Your task to perform on an android device: Go to Android settings Image 0: 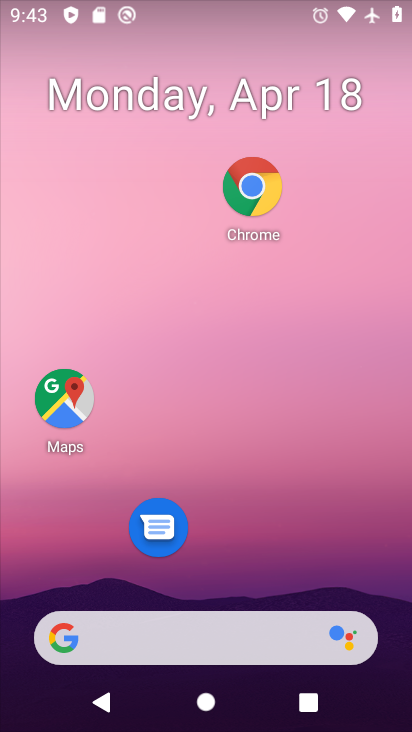
Step 0: drag from (276, 341) to (312, 0)
Your task to perform on an android device: Go to Android settings Image 1: 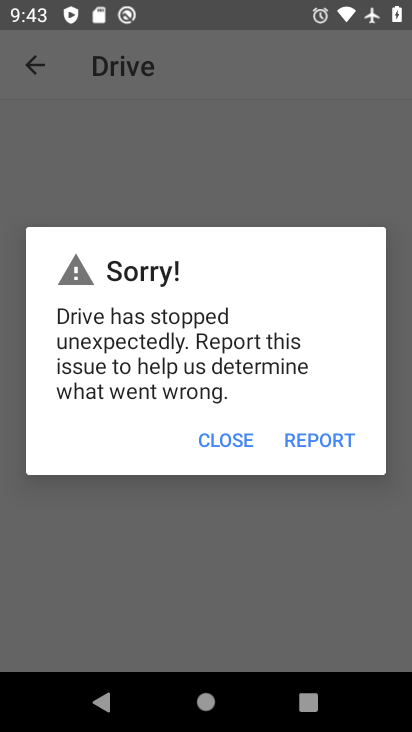
Step 1: press home button
Your task to perform on an android device: Go to Android settings Image 2: 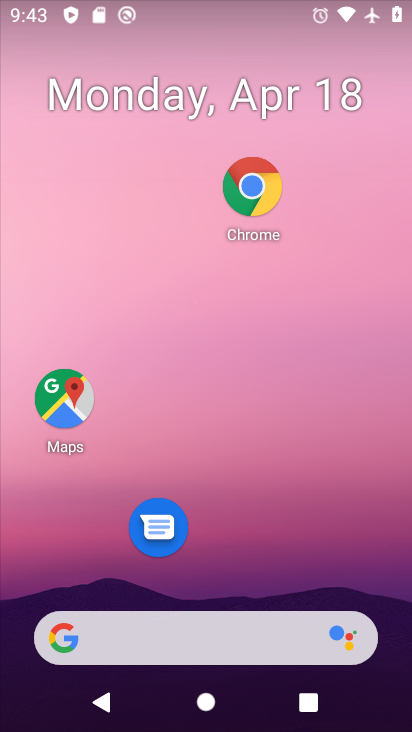
Step 2: drag from (293, 527) to (284, 28)
Your task to perform on an android device: Go to Android settings Image 3: 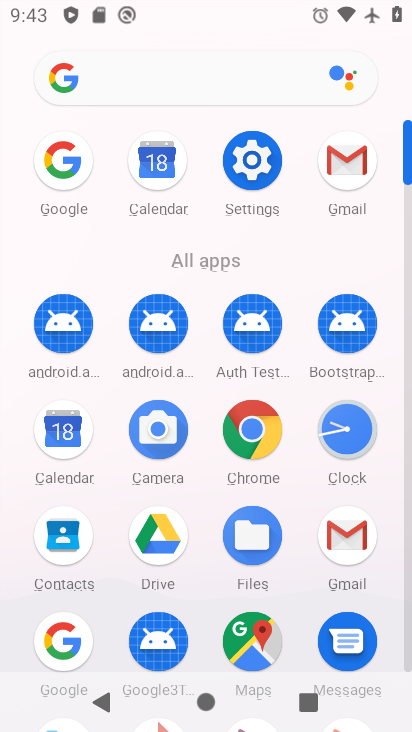
Step 3: click (260, 181)
Your task to perform on an android device: Go to Android settings Image 4: 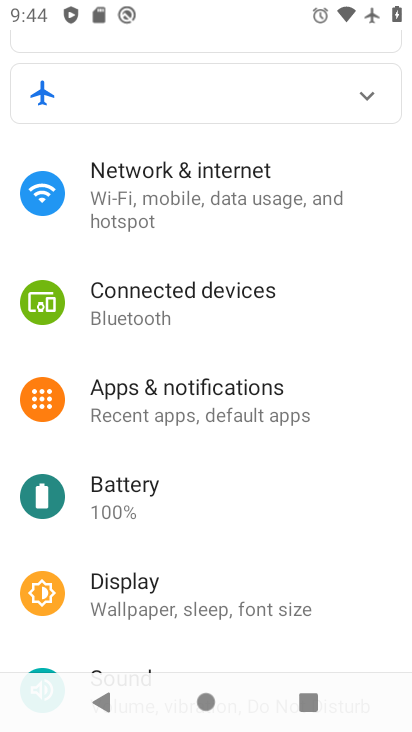
Step 4: drag from (258, 475) to (264, 89)
Your task to perform on an android device: Go to Android settings Image 5: 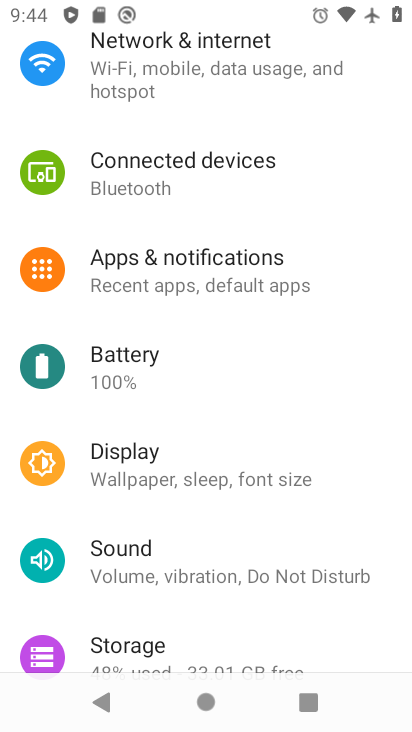
Step 5: drag from (263, 410) to (285, 12)
Your task to perform on an android device: Go to Android settings Image 6: 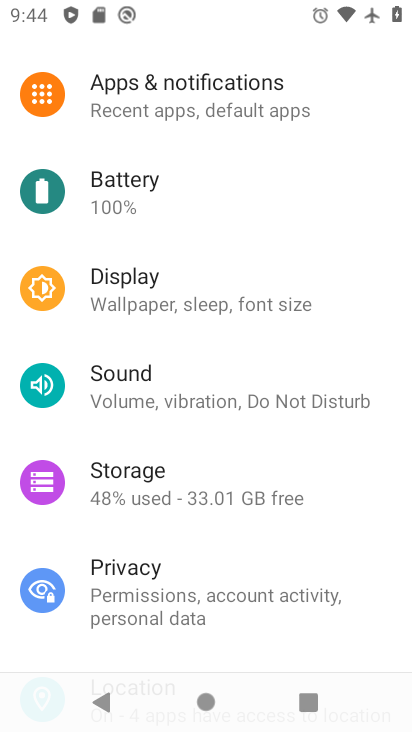
Step 6: drag from (304, 530) to (349, 9)
Your task to perform on an android device: Go to Android settings Image 7: 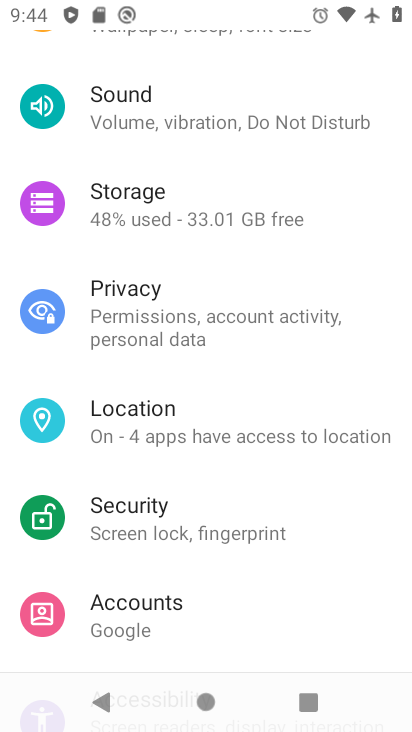
Step 7: drag from (295, 486) to (333, 5)
Your task to perform on an android device: Go to Android settings Image 8: 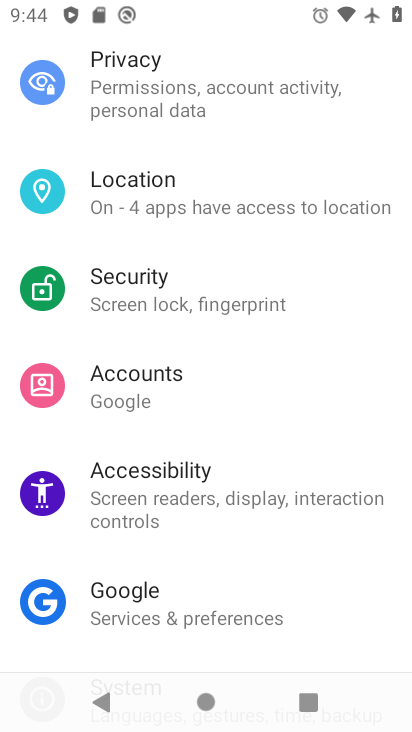
Step 8: drag from (172, 497) to (240, 85)
Your task to perform on an android device: Go to Android settings Image 9: 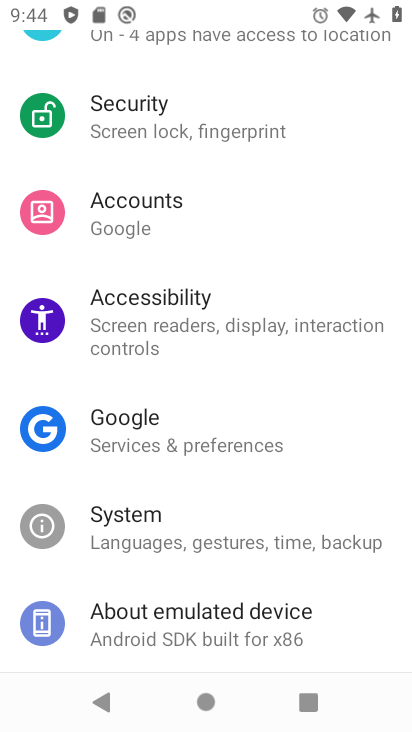
Step 9: click (191, 607)
Your task to perform on an android device: Go to Android settings Image 10: 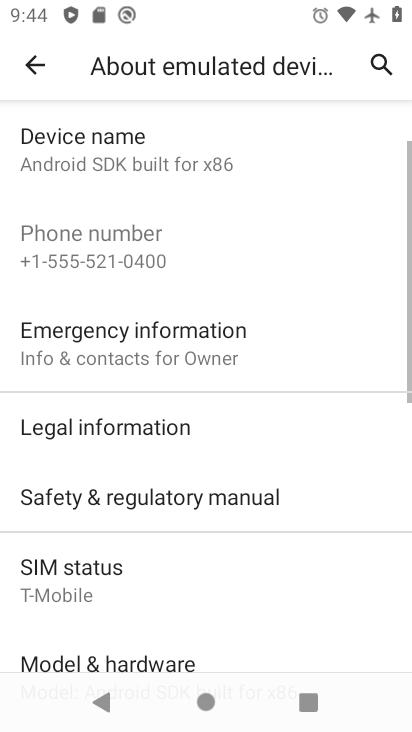
Step 10: drag from (184, 578) to (189, 185)
Your task to perform on an android device: Go to Android settings Image 11: 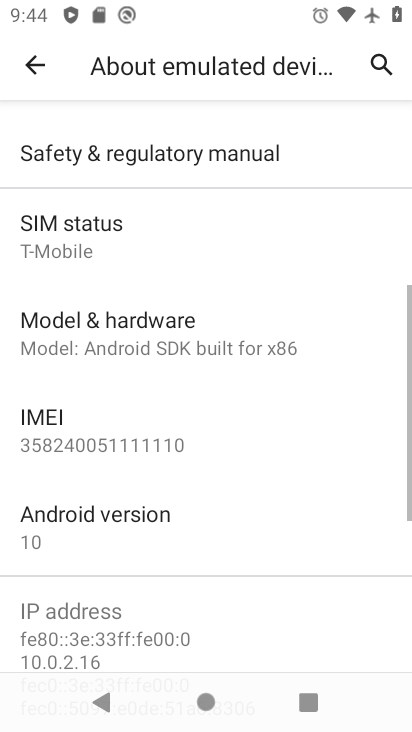
Step 11: click (138, 519)
Your task to perform on an android device: Go to Android settings Image 12: 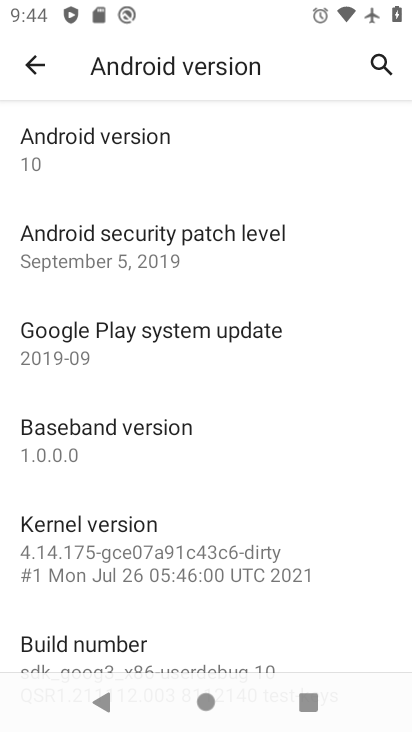
Step 12: task complete